Your task to perform on an android device: Search for sushi restaurants on Maps Image 0: 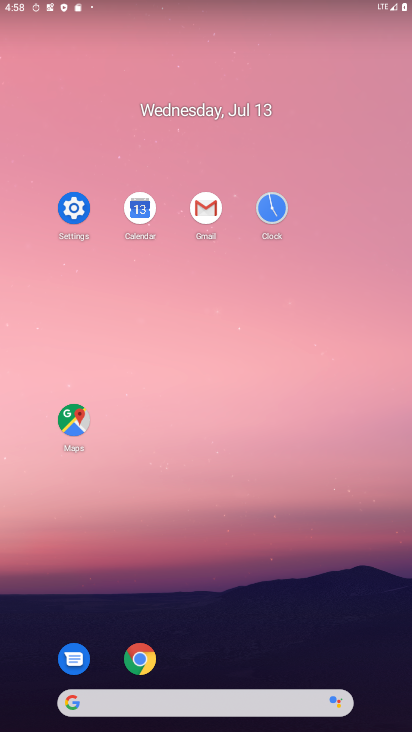
Step 0: click (81, 421)
Your task to perform on an android device: Search for sushi restaurants on Maps Image 1: 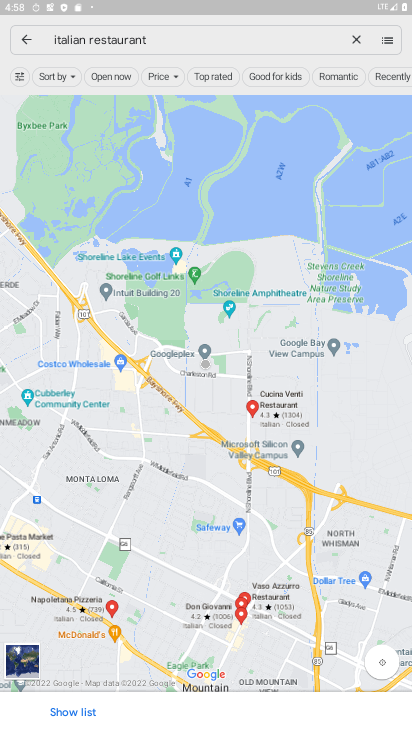
Step 1: click (350, 36)
Your task to perform on an android device: Search for sushi restaurants on Maps Image 2: 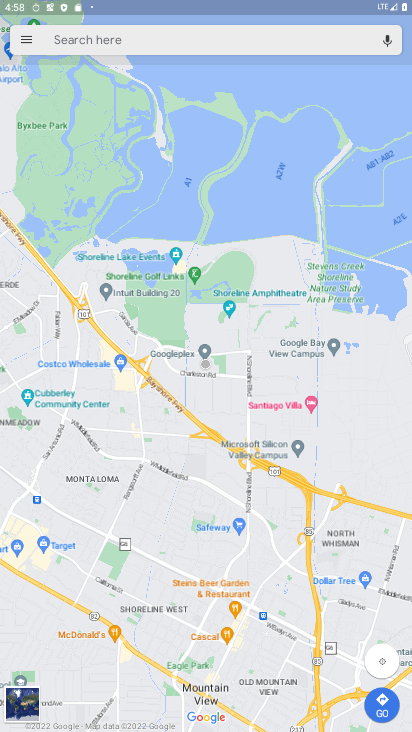
Step 2: click (293, 43)
Your task to perform on an android device: Search for sushi restaurants on Maps Image 3: 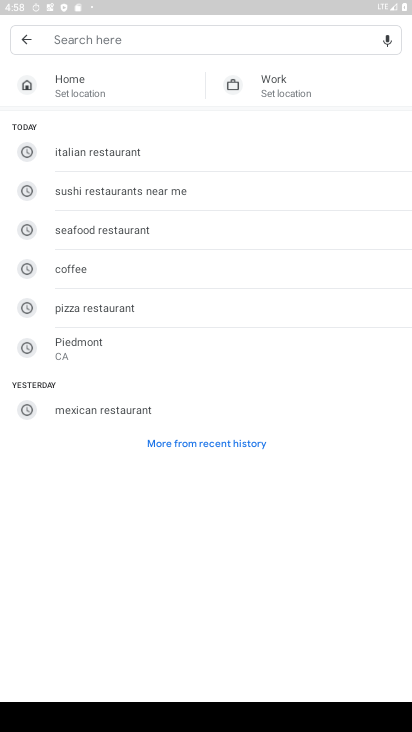
Step 3: type "sushi restaurants"
Your task to perform on an android device: Search for sushi restaurants on Maps Image 4: 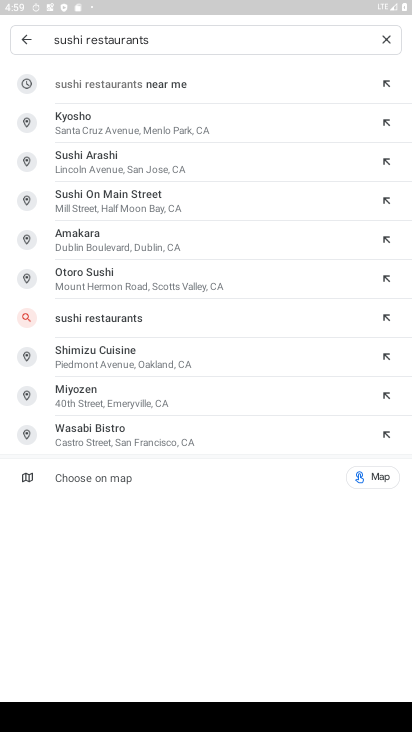
Step 4: task complete